Your task to perform on an android device: Search for pizza restaurants on Maps Image 0: 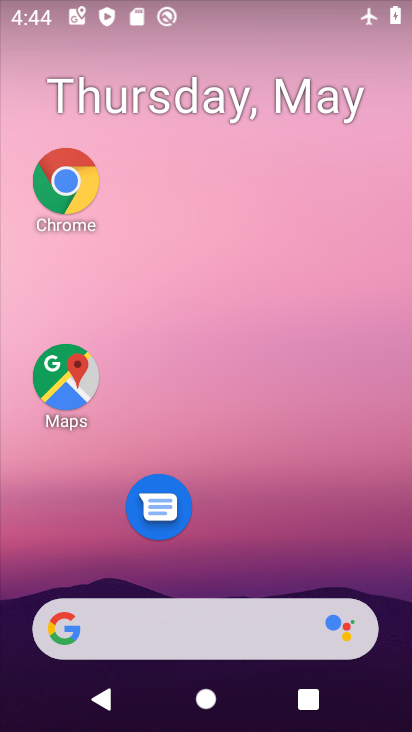
Step 0: drag from (313, 520) to (83, 14)
Your task to perform on an android device: Search for pizza restaurants on Maps Image 1: 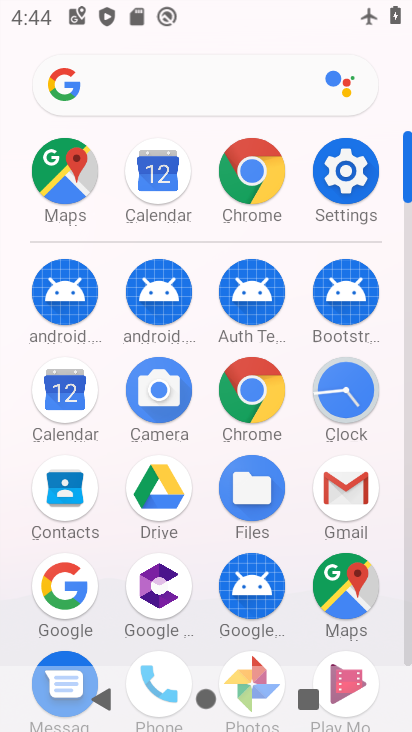
Step 1: click (352, 572)
Your task to perform on an android device: Search for pizza restaurants on Maps Image 2: 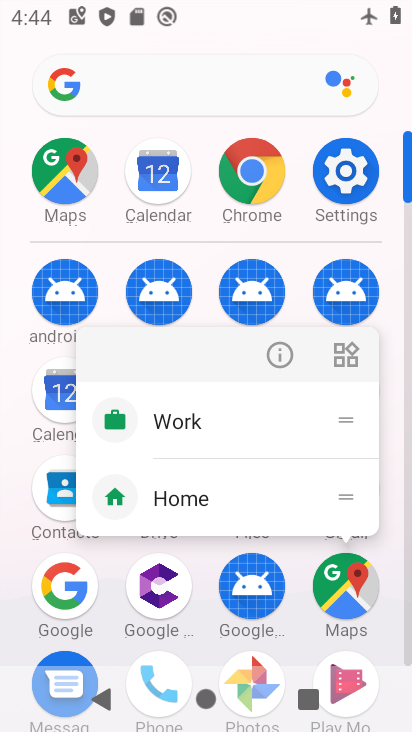
Step 2: click (352, 588)
Your task to perform on an android device: Search for pizza restaurants on Maps Image 3: 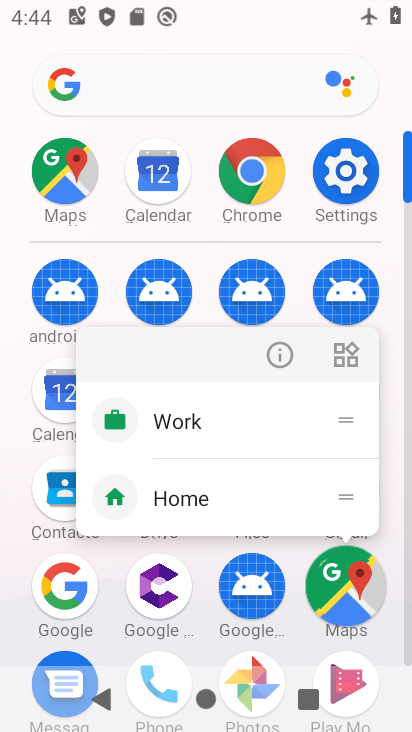
Step 3: click (351, 580)
Your task to perform on an android device: Search for pizza restaurants on Maps Image 4: 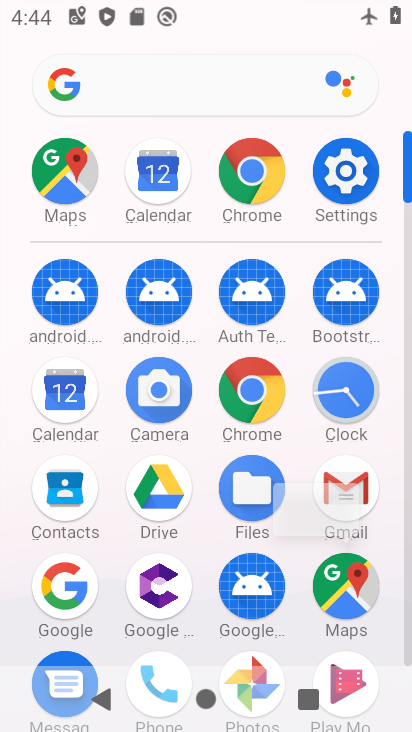
Step 4: click (341, 575)
Your task to perform on an android device: Search for pizza restaurants on Maps Image 5: 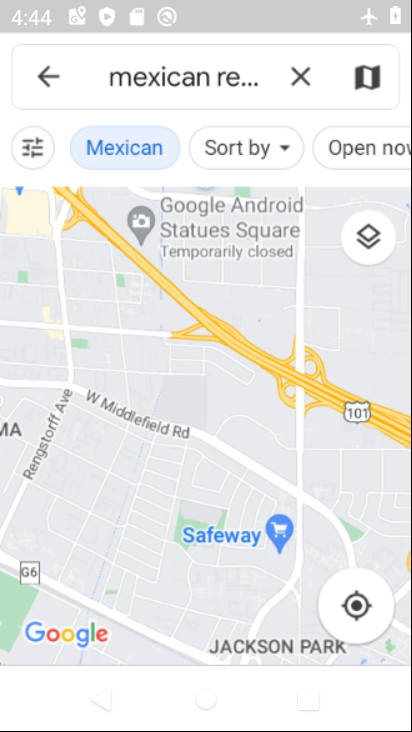
Step 5: click (357, 588)
Your task to perform on an android device: Search for pizza restaurants on Maps Image 6: 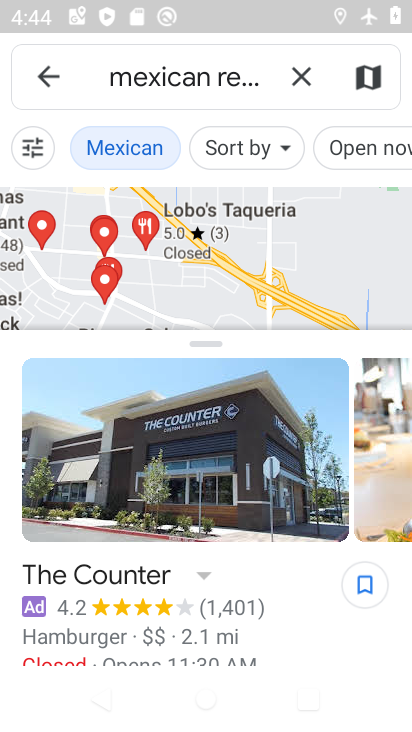
Step 6: click (111, 70)
Your task to perform on an android device: Search for pizza restaurants on Maps Image 7: 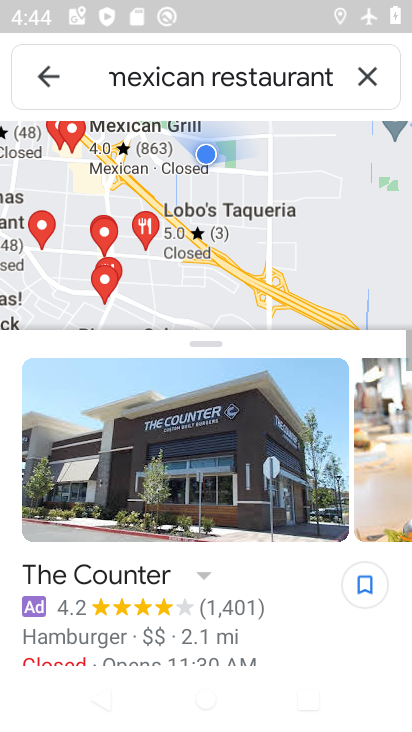
Step 7: click (298, 71)
Your task to perform on an android device: Search for pizza restaurants on Maps Image 8: 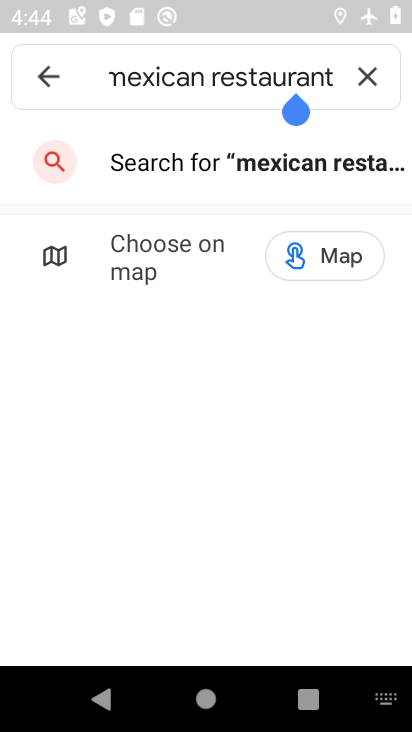
Step 8: click (137, 71)
Your task to perform on an android device: Search for pizza restaurants on Maps Image 9: 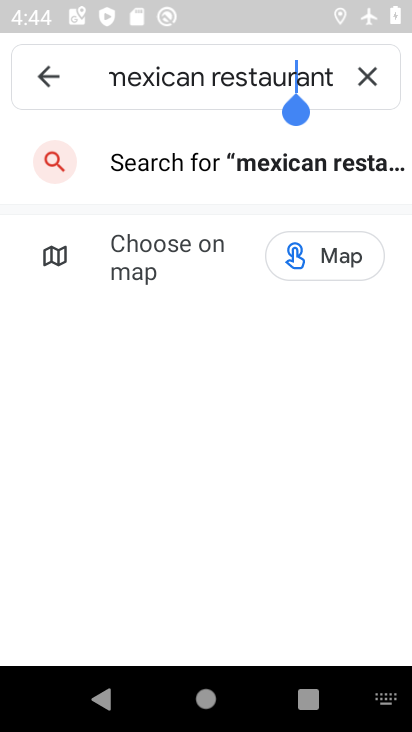
Step 9: click (123, 75)
Your task to perform on an android device: Search for pizza restaurants on Maps Image 10: 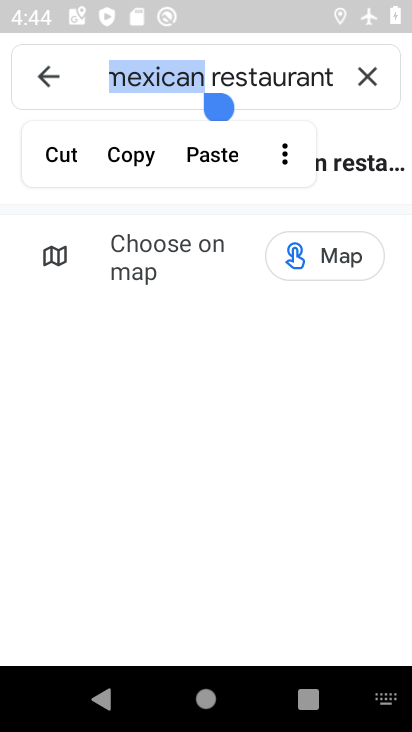
Step 10: click (121, 78)
Your task to perform on an android device: Search for pizza restaurants on Maps Image 11: 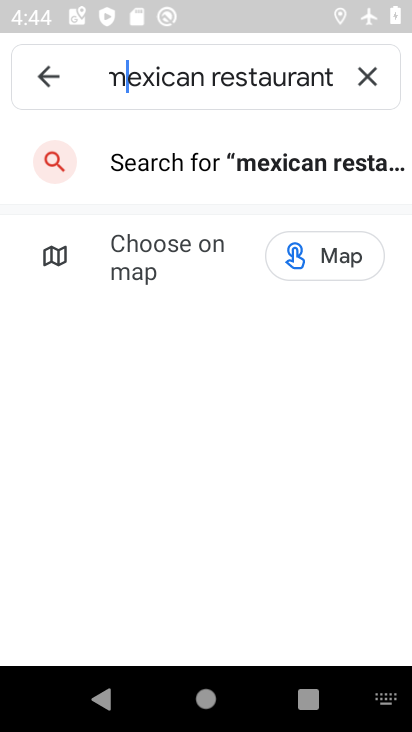
Step 11: click (124, 75)
Your task to perform on an android device: Search for pizza restaurants on Maps Image 12: 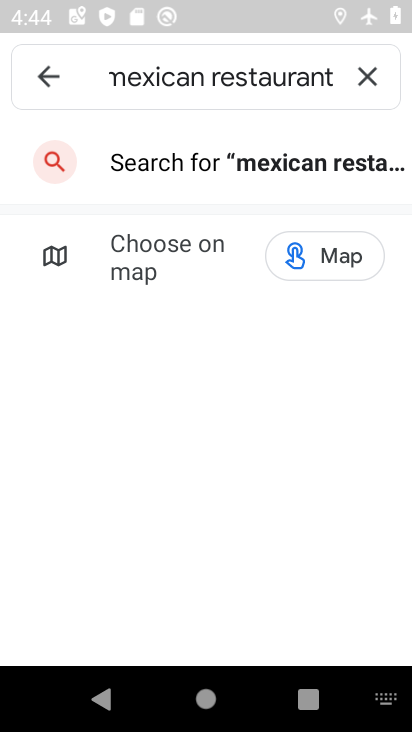
Step 12: click (124, 75)
Your task to perform on an android device: Search for pizza restaurants on Maps Image 13: 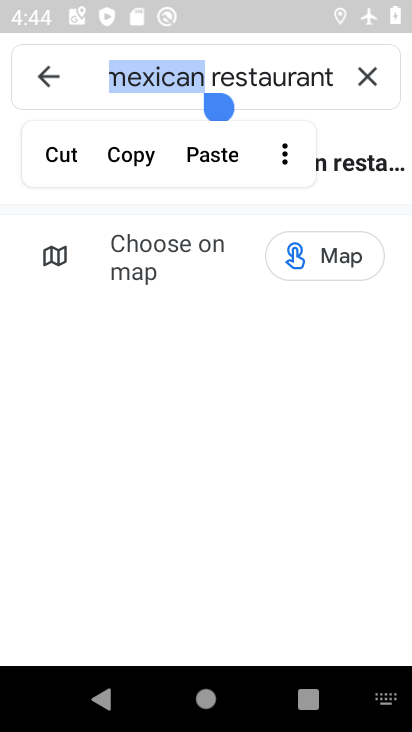
Step 13: click (64, 158)
Your task to perform on an android device: Search for pizza restaurants on Maps Image 14: 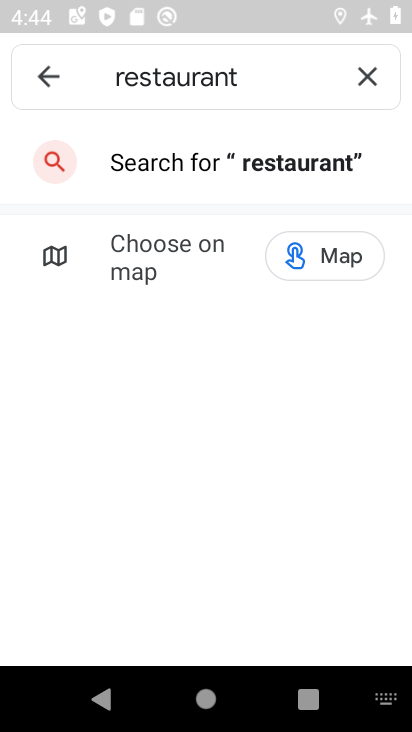
Step 14: type "pizza"
Your task to perform on an android device: Search for pizza restaurants on Maps Image 15: 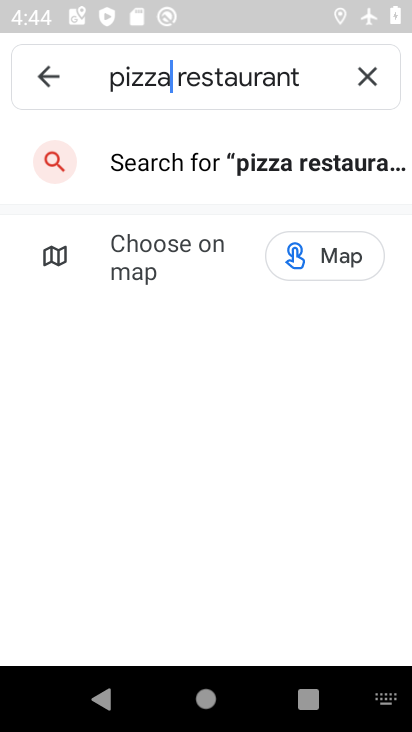
Step 15: click (283, 168)
Your task to perform on an android device: Search for pizza restaurants on Maps Image 16: 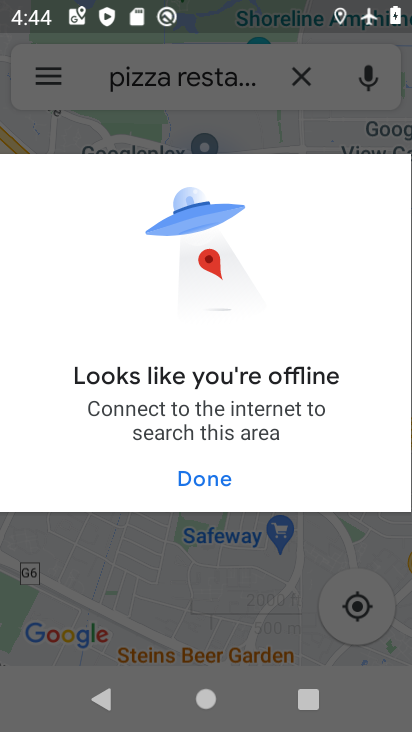
Step 16: task complete